Your task to perform on an android device: Play the last video I watched on Youtube Image 0: 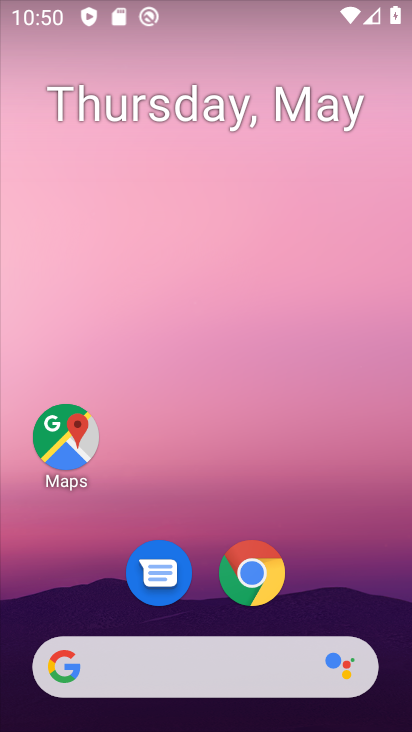
Step 0: drag from (77, 629) to (147, 206)
Your task to perform on an android device: Play the last video I watched on Youtube Image 1: 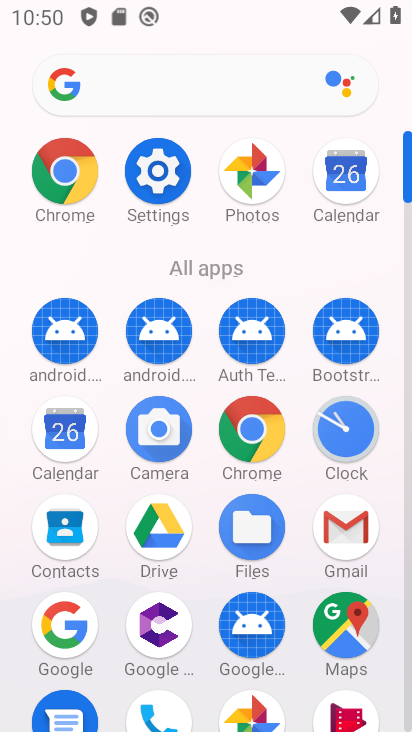
Step 1: drag from (190, 571) to (265, 195)
Your task to perform on an android device: Play the last video I watched on Youtube Image 2: 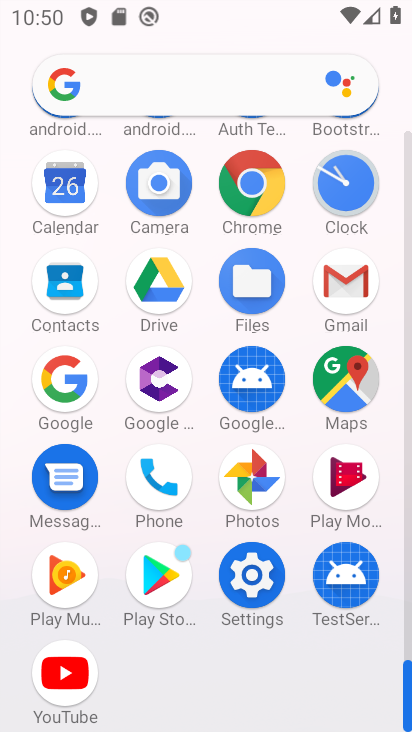
Step 2: click (75, 669)
Your task to perform on an android device: Play the last video I watched on Youtube Image 3: 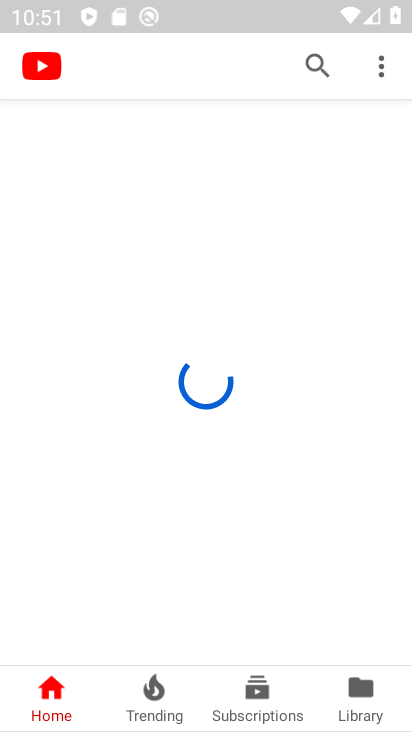
Step 3: click (75, 669)
Your task to perform on an android device: Play the last video I watched on Youtube Image 4: 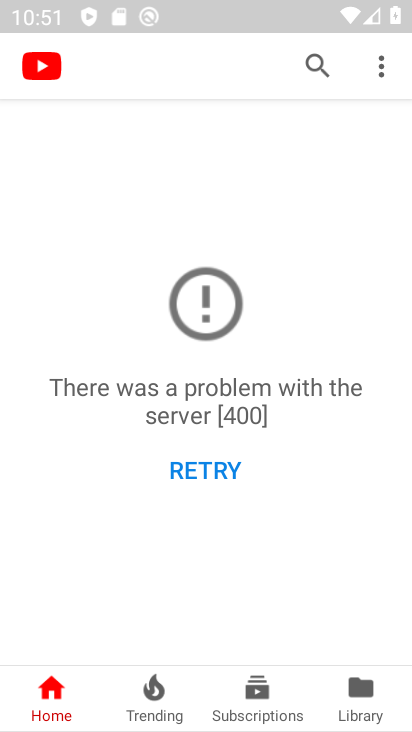
Step 4: click (365, 694)
Your task to perform on an android device: Play the last video I watched on Youtube Image 5: 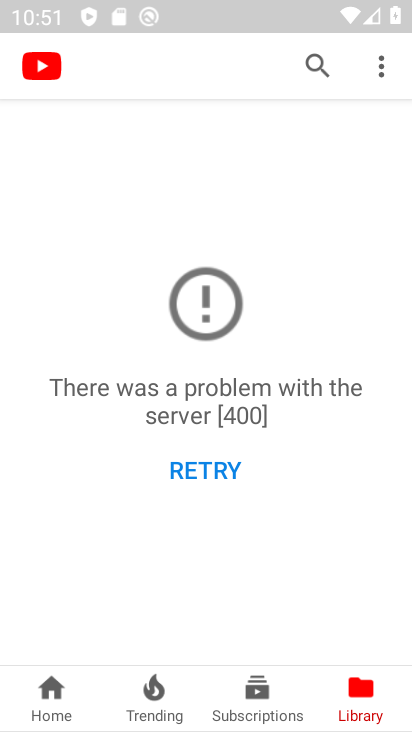
Step 5: task complete